Your task to perform on an android device: Go to eBay Image 0: 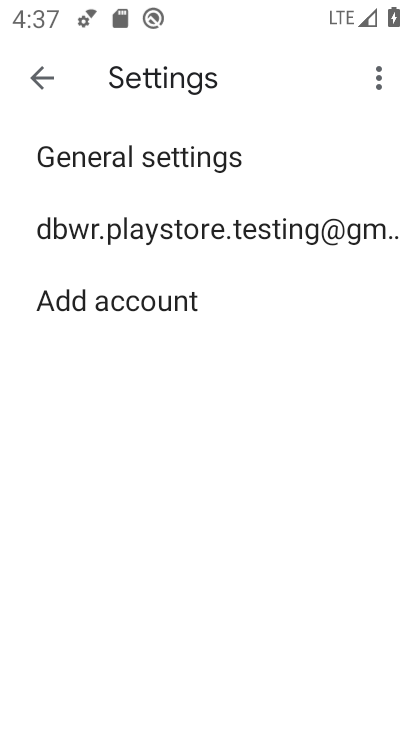
Step 0: press home button
Your task to perform on an android device: Go to eBay Image 1: 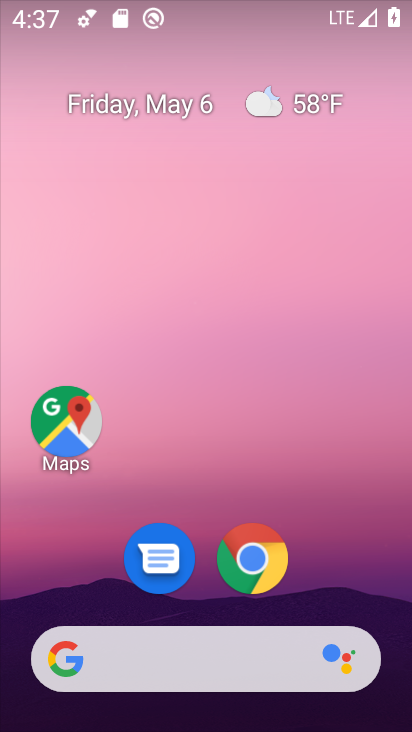
Step 1: drag from (302, 627) to (260, 7)
Your task to perform on an android device: Go to eBay Image 2: 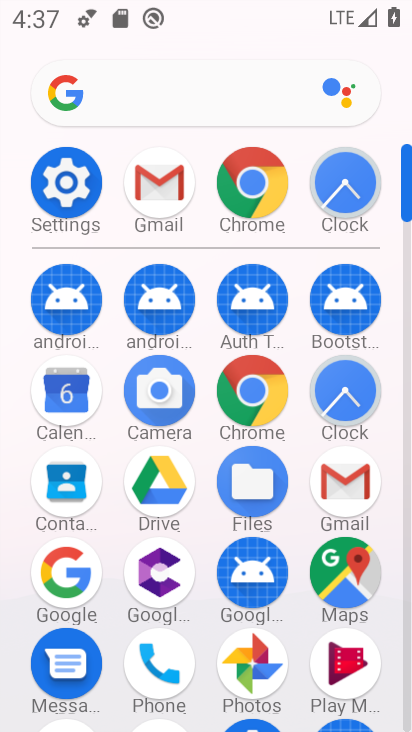
Step 2: click (248, 398)
Your task to perform on an android device: Go to eBay Image 3: 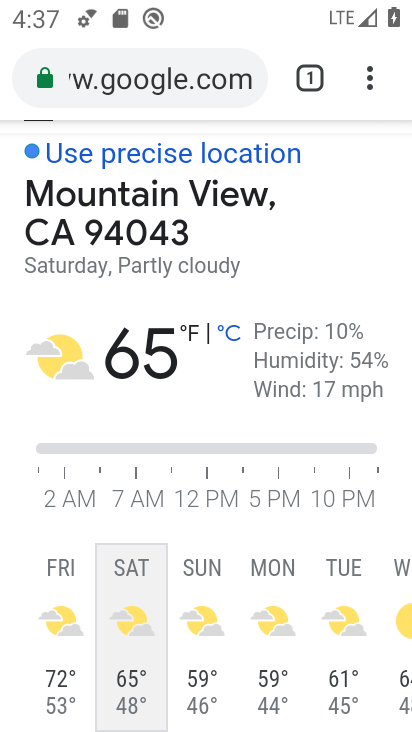
Step 3: drag from (365, 71) to (402, 292)
Your task to perform on an android device: Go to eBay Image 4: 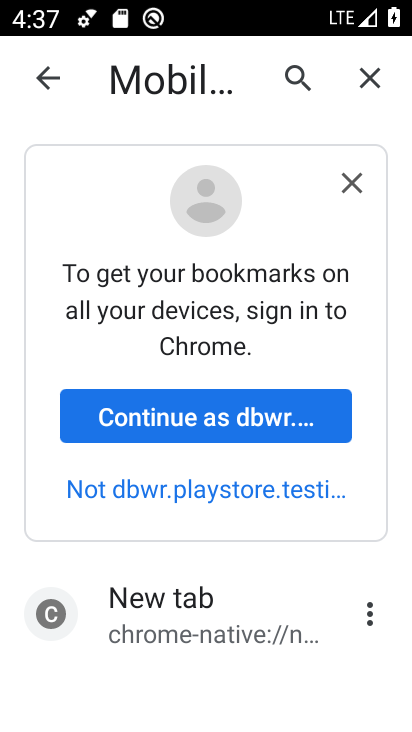
Step 4: press back button
Your task to perform on an android device: Go to eBay Image 5: 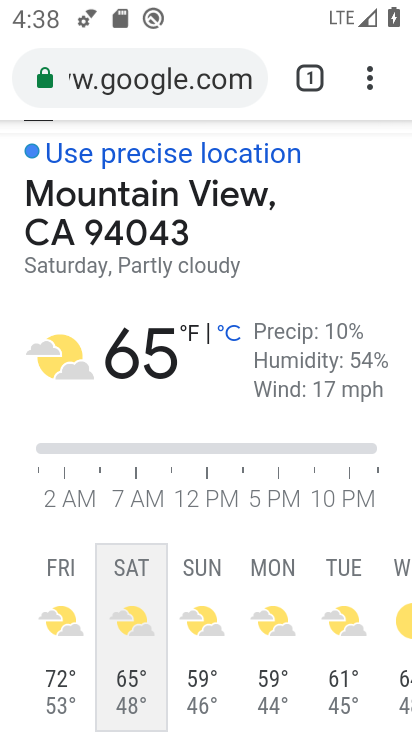
Step 5: click (214, 84)
Your task to perform on an android device: Go to eBay Image 6: 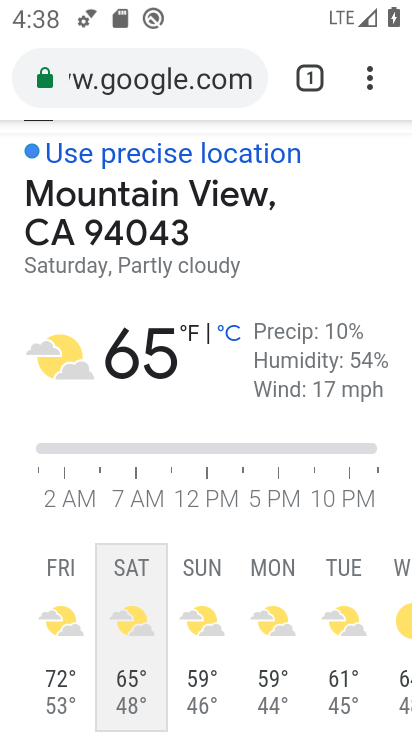
Step 6: drag from (214, 84) to (266, 84)
Your task to perform on an android device: Go to eBay Image 7: 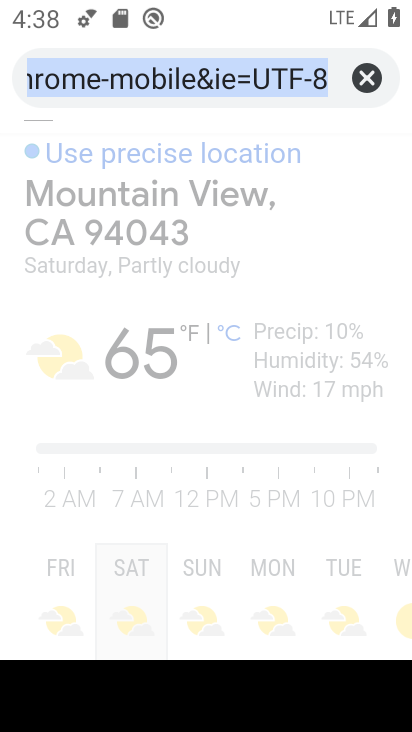
Step 7: click (380, 74)
Your task to perform on an android device: Go to eBay Image 8: 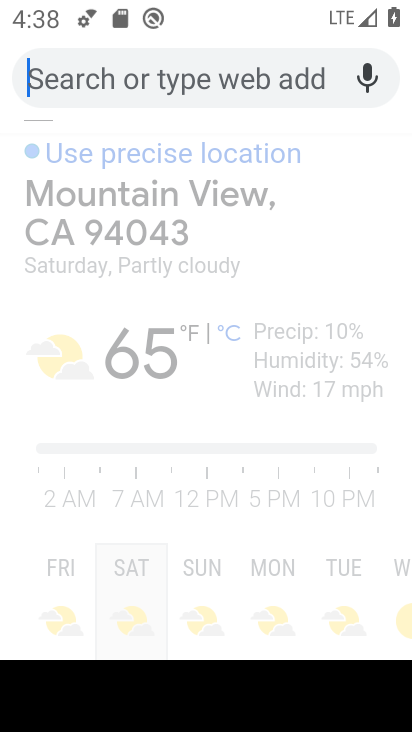
Step 8: type "ebay"
Your task to perform on an android device: Go to eBay Image 9: 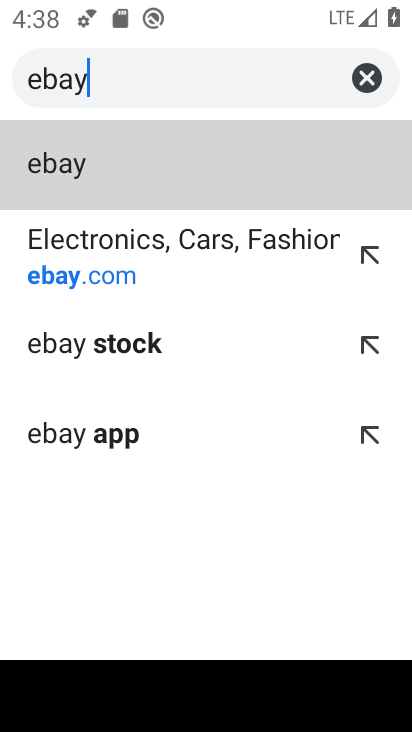
Step 9: click (259, 171)
Your task to perform on an android device: Go to eBay Image 10: 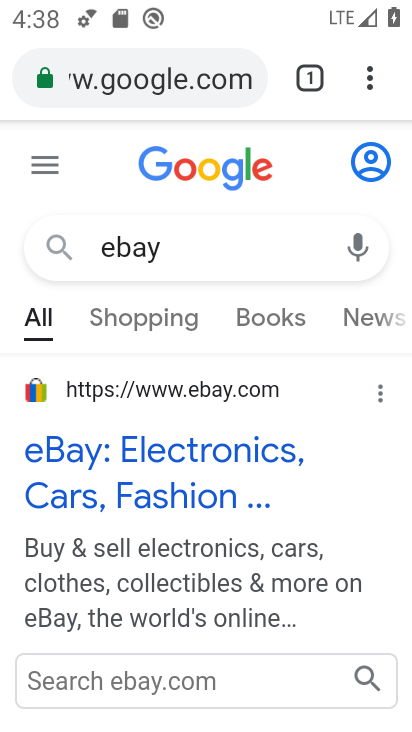
Step 10: task complete